Your task to perform on an android device: Search for the best rated mattress topper on Target. Image 0: 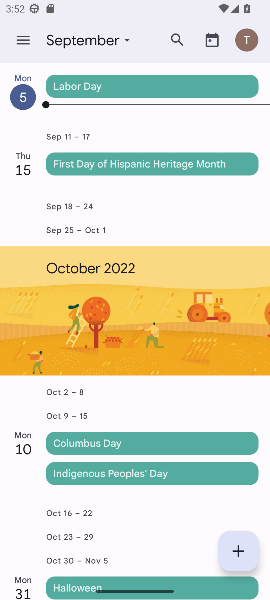
Step 0: press home button
Your task to perform on an android device: Search for the best rated mattress topper on Target. Image 1: 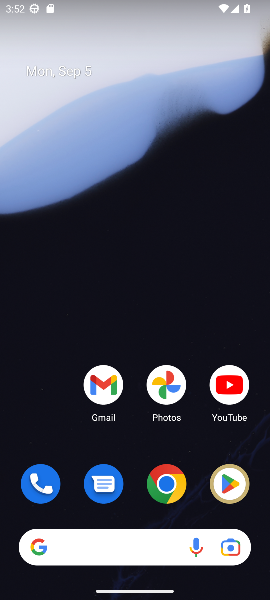
Step 1: click (165, 485)
Your task to perform on an android device: Search for the best rated mattress topper on Target. Image 2: 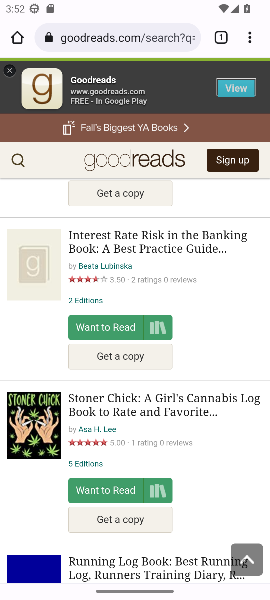
Step 2: click (165, 36)
Your task to perform on an android device: Search for the best rated mattress topper on Target. Image 3: 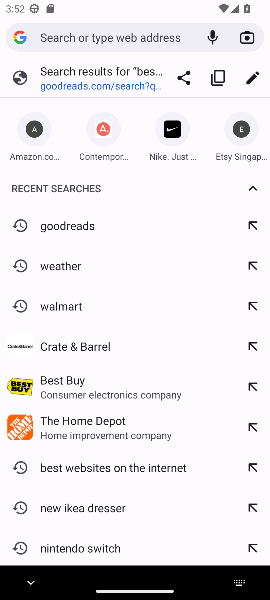
Step 3: type " Target"
Your task to perform on an android device: Search for the best rated mattress topper on Target. Image 4: 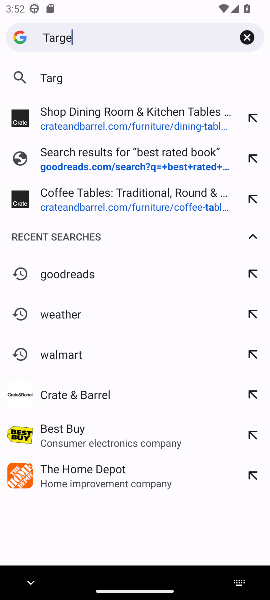
Step 4: press enter
Your task to perform on an android device: Search for the best rated mattress topper on Target. Image 5: 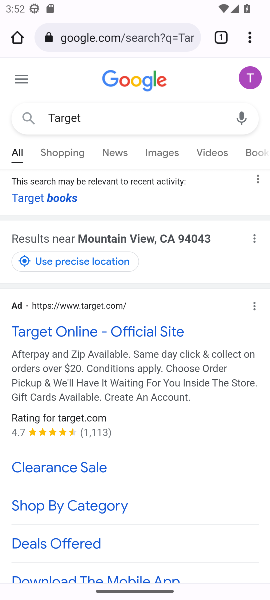
Step 5: click (85, 332)
Your task to perform on an android device: Search for the best rated mattress topper on Target. Image 6: 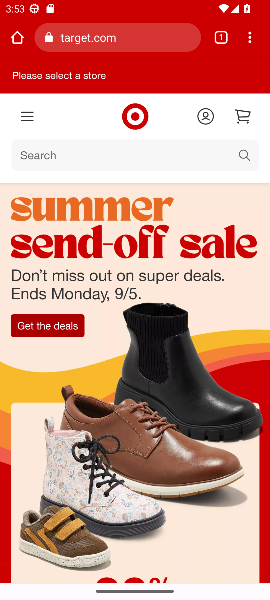
Step 6: click (238, 149)
Your task to perform on an android device: Search for the best rated mattress topper on Target. Image 7: 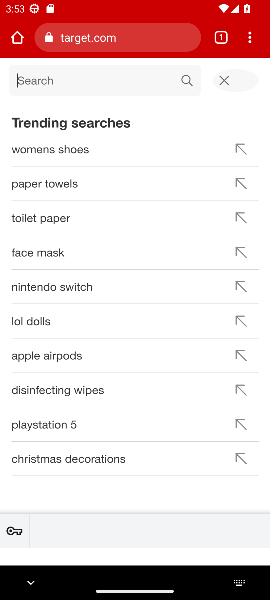
Step 7: type "best rated mattress topper"
Your task to perform on an android device: Search for the best rated mattress topper on Target. Image 8: 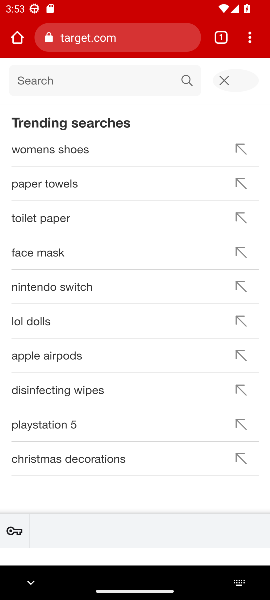
Step 8: press enter
Your task to perform on an android device: Search for the best rated mattress topper on Target. Image 9: 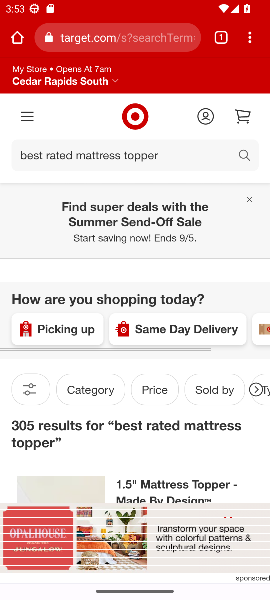
Step 9: task complete